Your task to perform on an android device: Check the settings for the Netflix app Image 0: 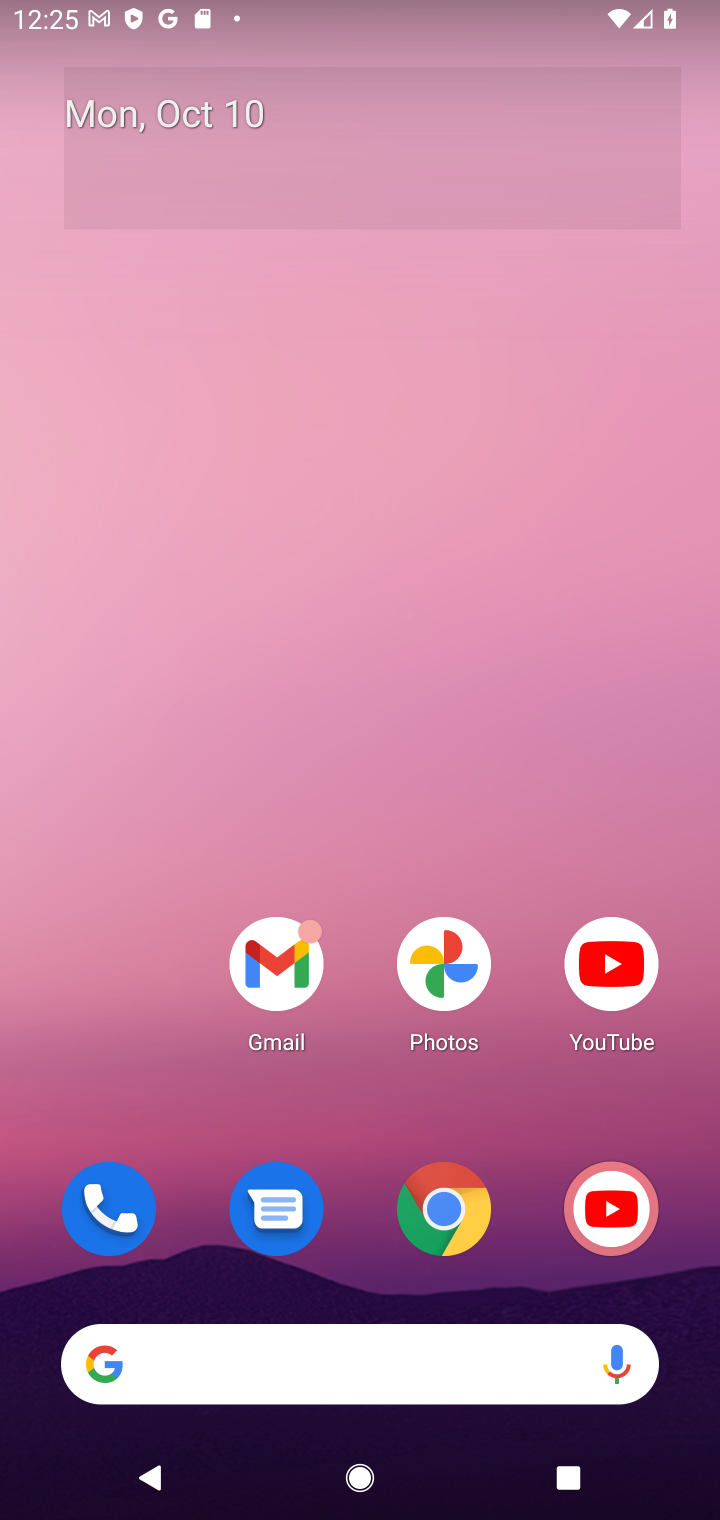
Step 0: drag from (325, 1325) to (423, 47)
Your task to perform on an android device: Check the settings for the Netflix app Image 1: 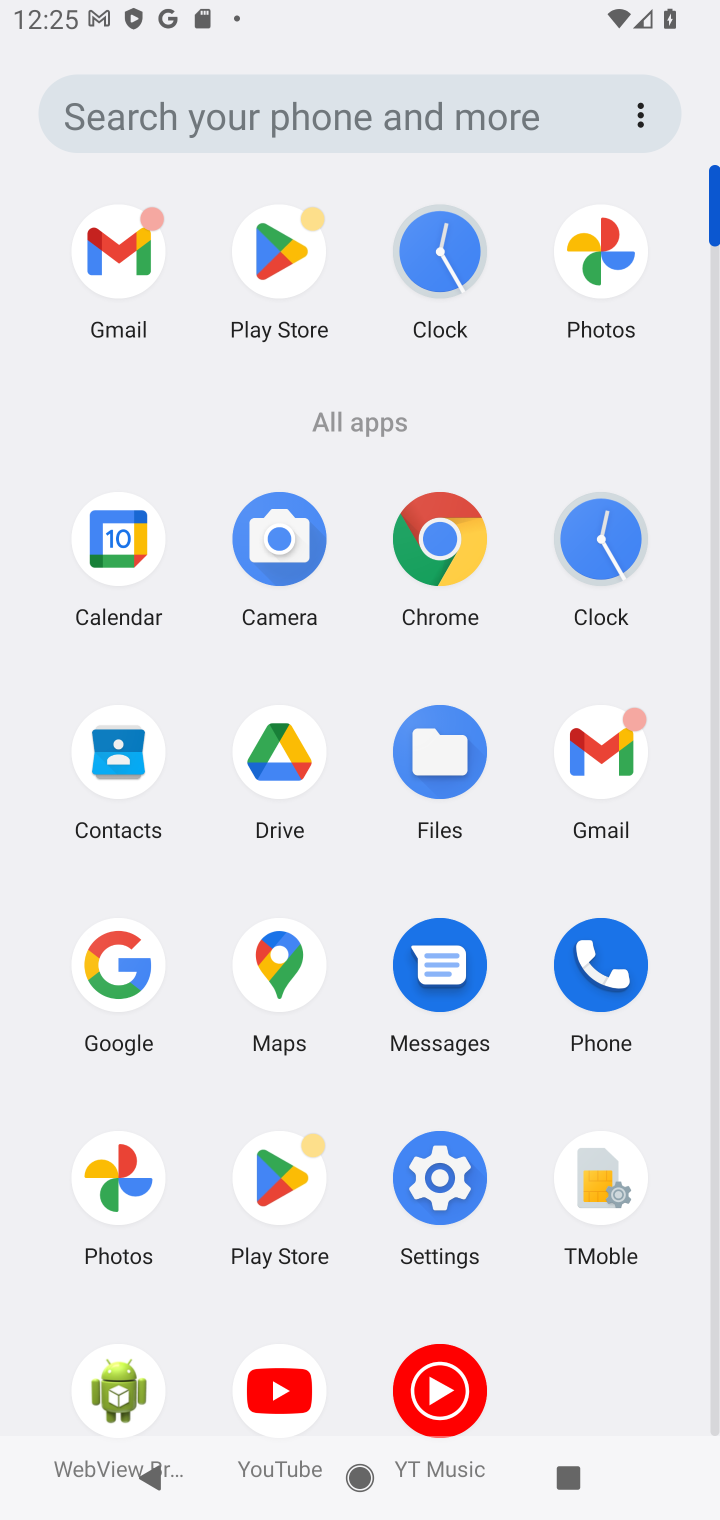
Step 1: click (129, 967)
Your task to perform on an android device: Check the settings for the Netflix app Image 2: 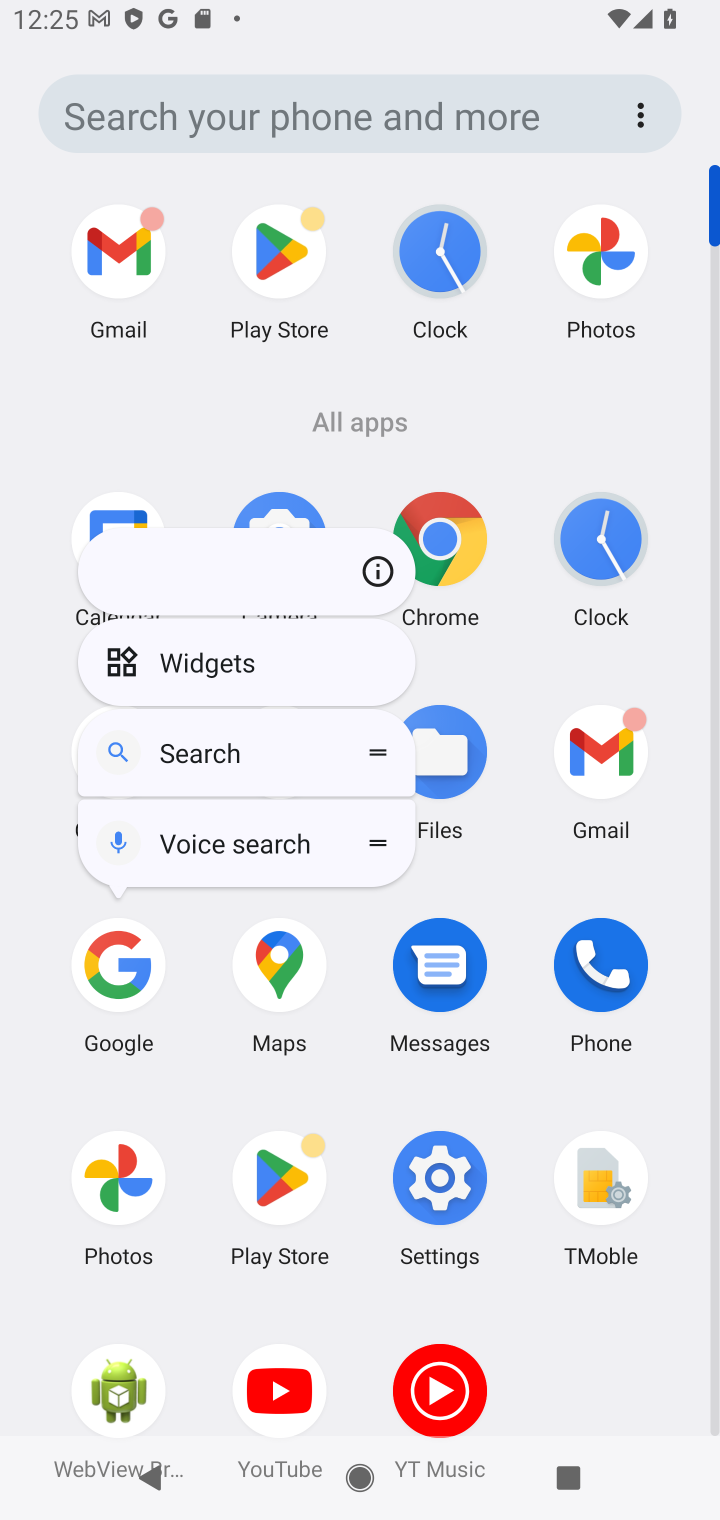
Step 2: click (120, 960)
Your task to perform on an android device: Check the settings for the Netflix app Image 3: 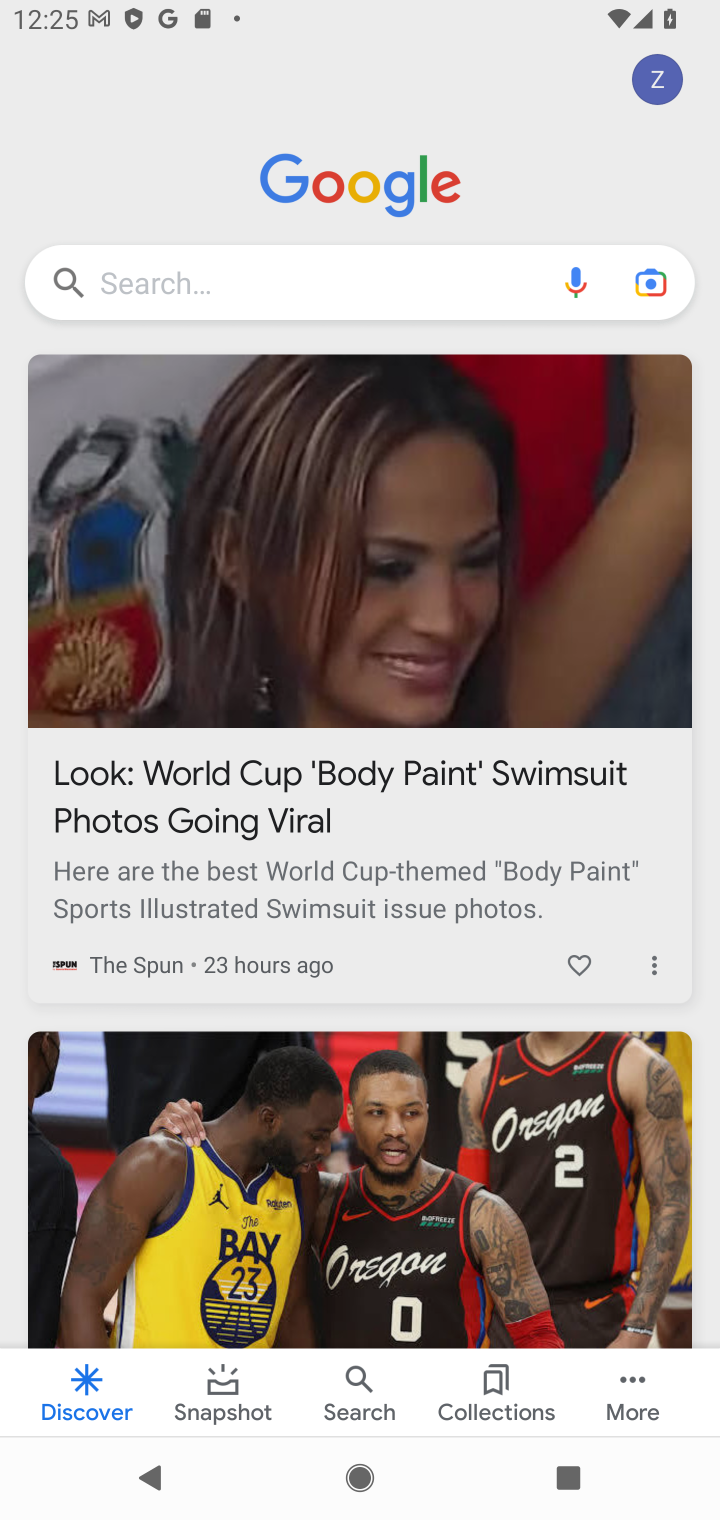
Step 3: click (282, 283)
Your task to perform on an android device: Check the settings for the Netflix app Image 4: 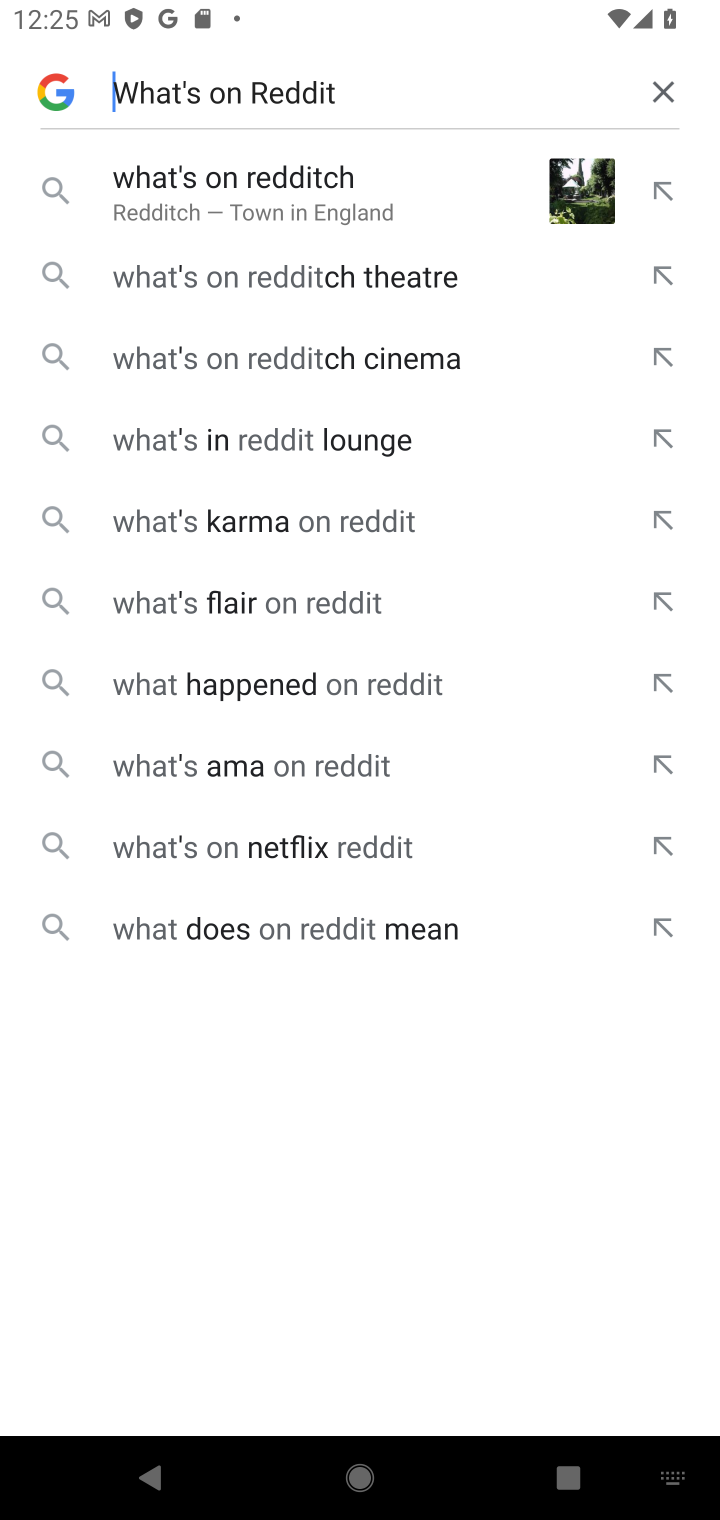
Step 4: click (661, 92)
Your task to perform on an android device: Check the settings for the Netflix app Image 5: 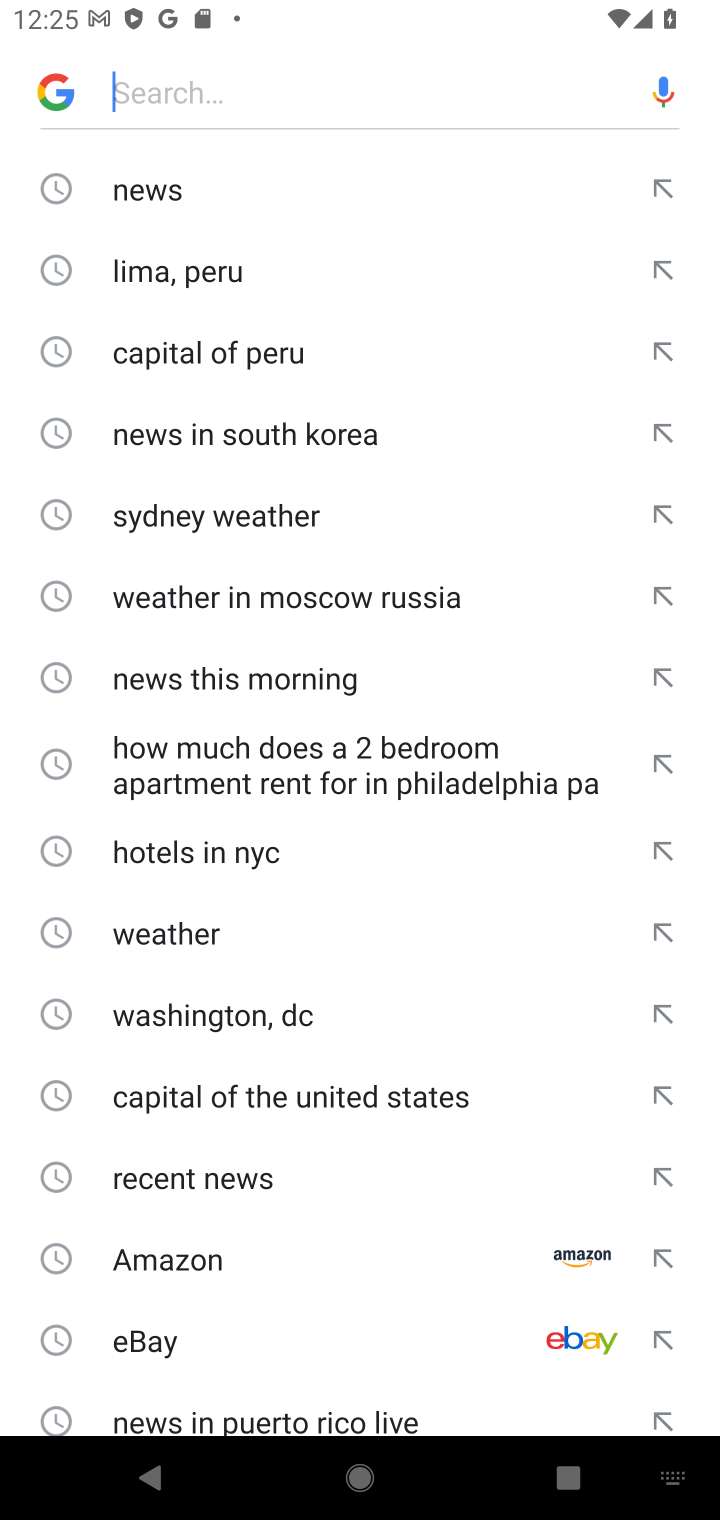
Step 5: type "Check the settings for the Netflix app"
Your task to perform on an android device: Check the settings for the Netflix app Image 6: 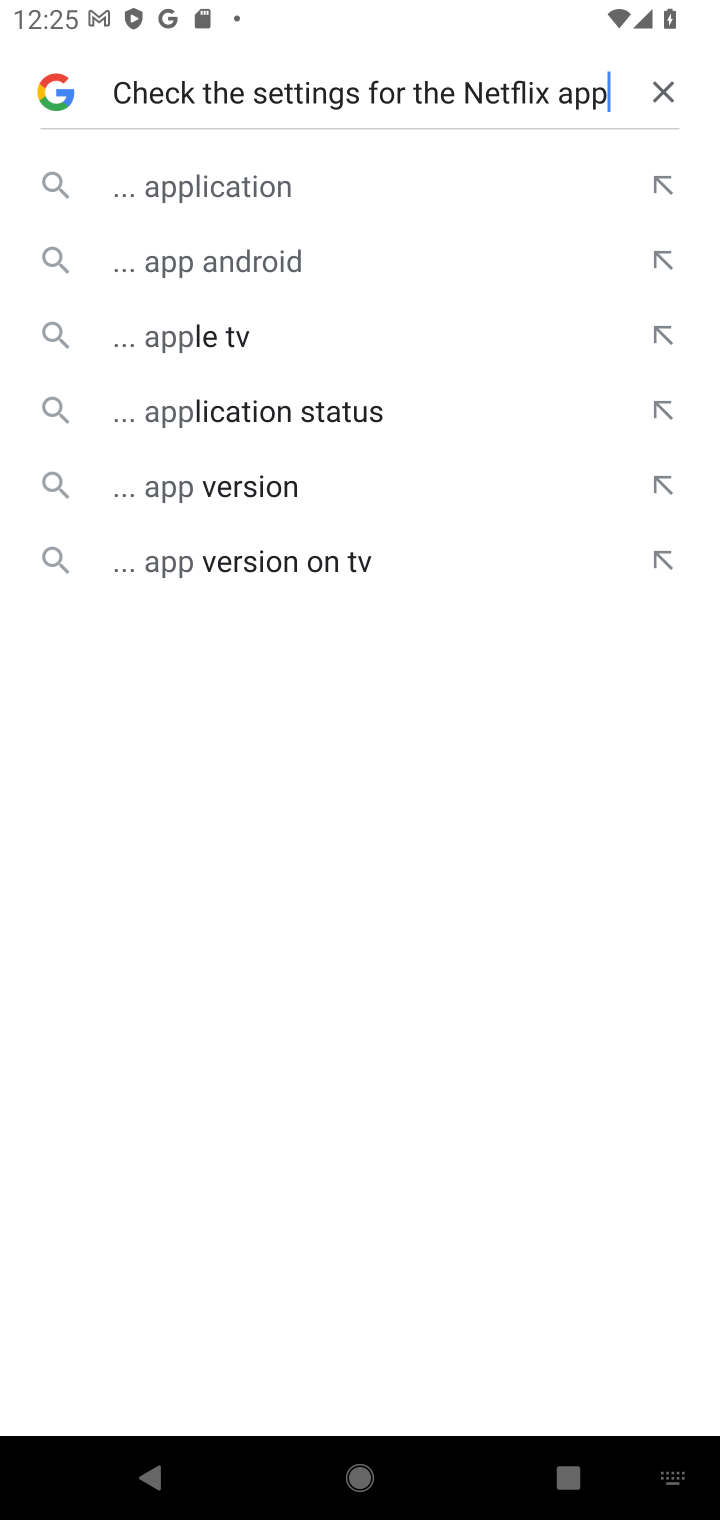
Step 6: click (196, 480)
Your task to perform on an android device: Check the settings for the Netflix app Image 7: 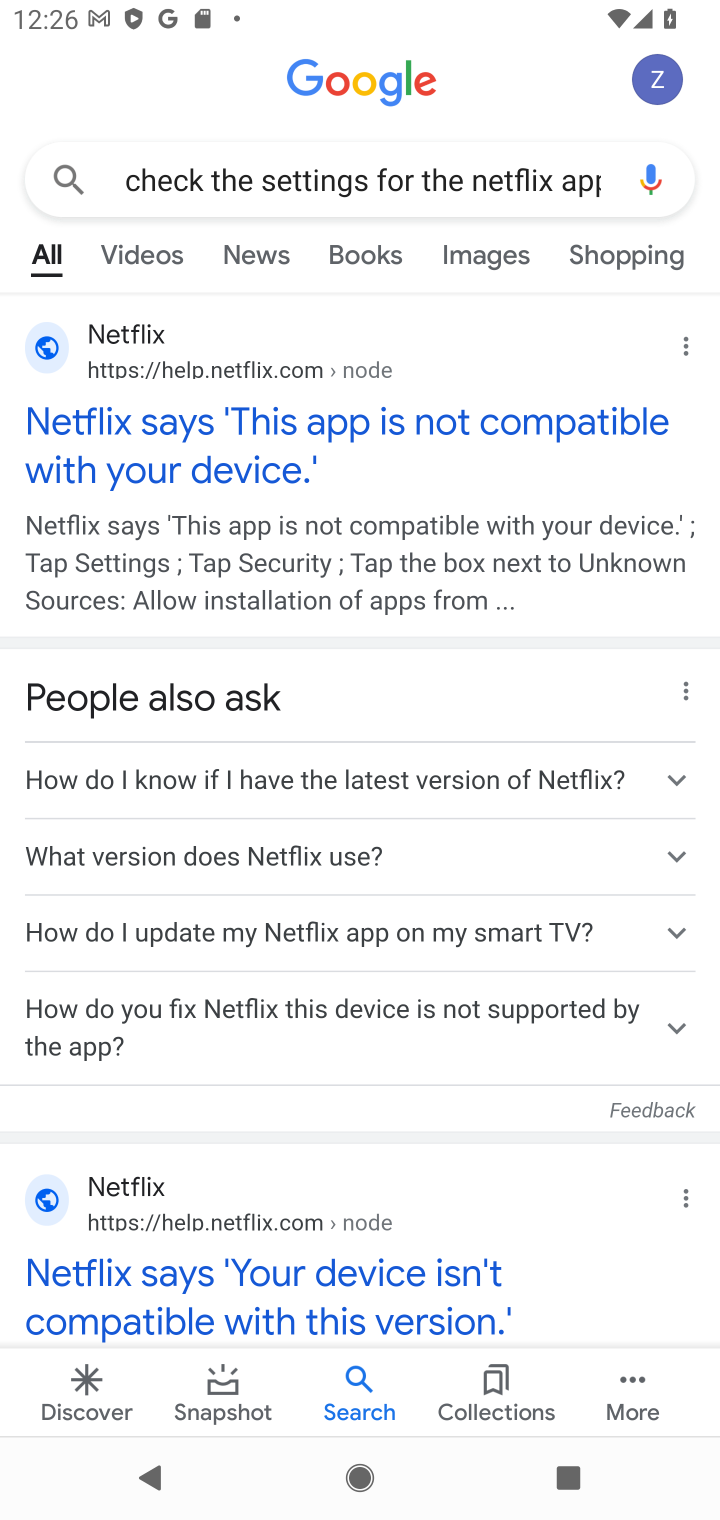
Step 7: task complete